Your task to perform on an android device: Check the weather Image 0: 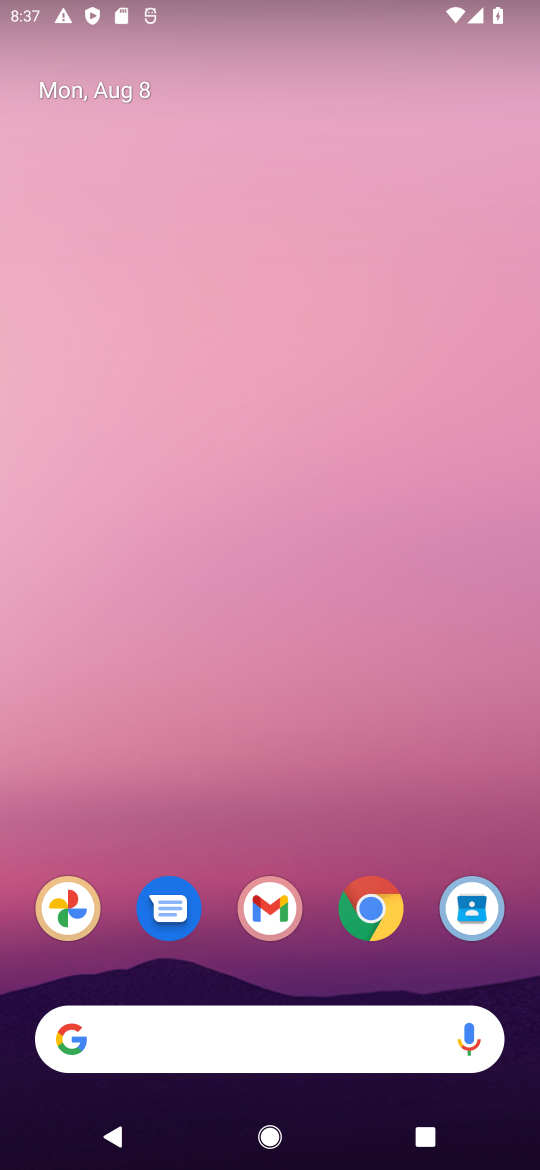
Step 0: click (377, 1067)
Your task to perform on an android device: Check the weather Image 1: 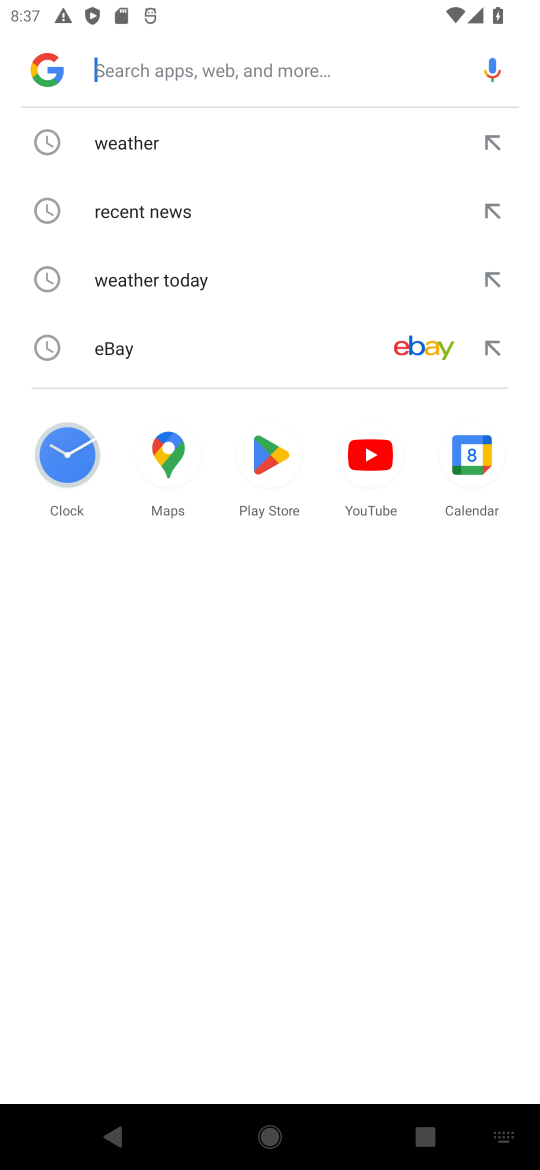
Step 1: click (162, 123)
Your task to perform on an android device: Check the weather Image 2: 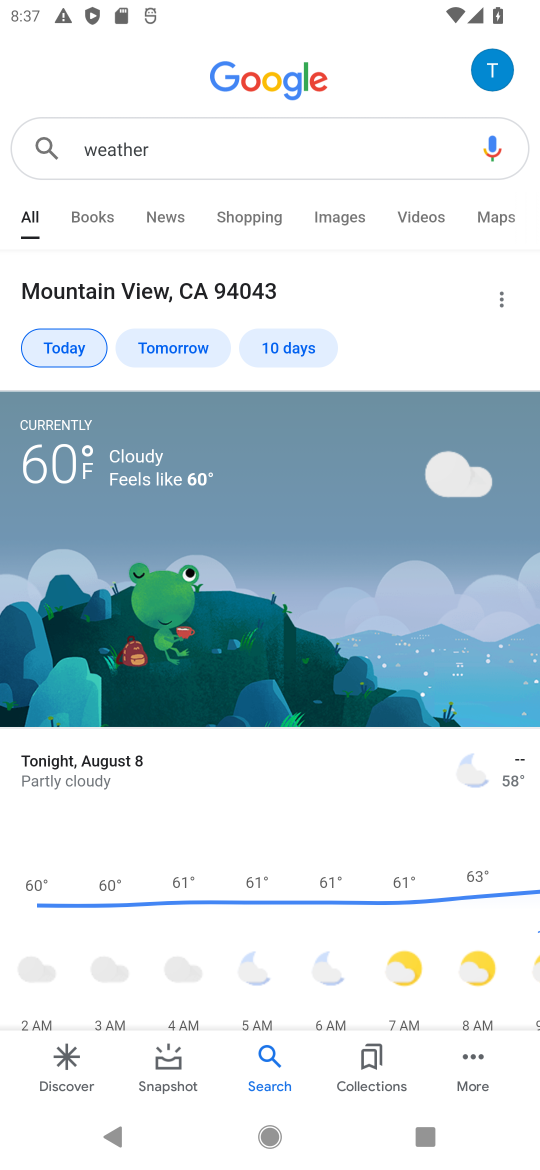
Step 2: task complete